Your task to perform on an android device: open app "Google News" Image 0: 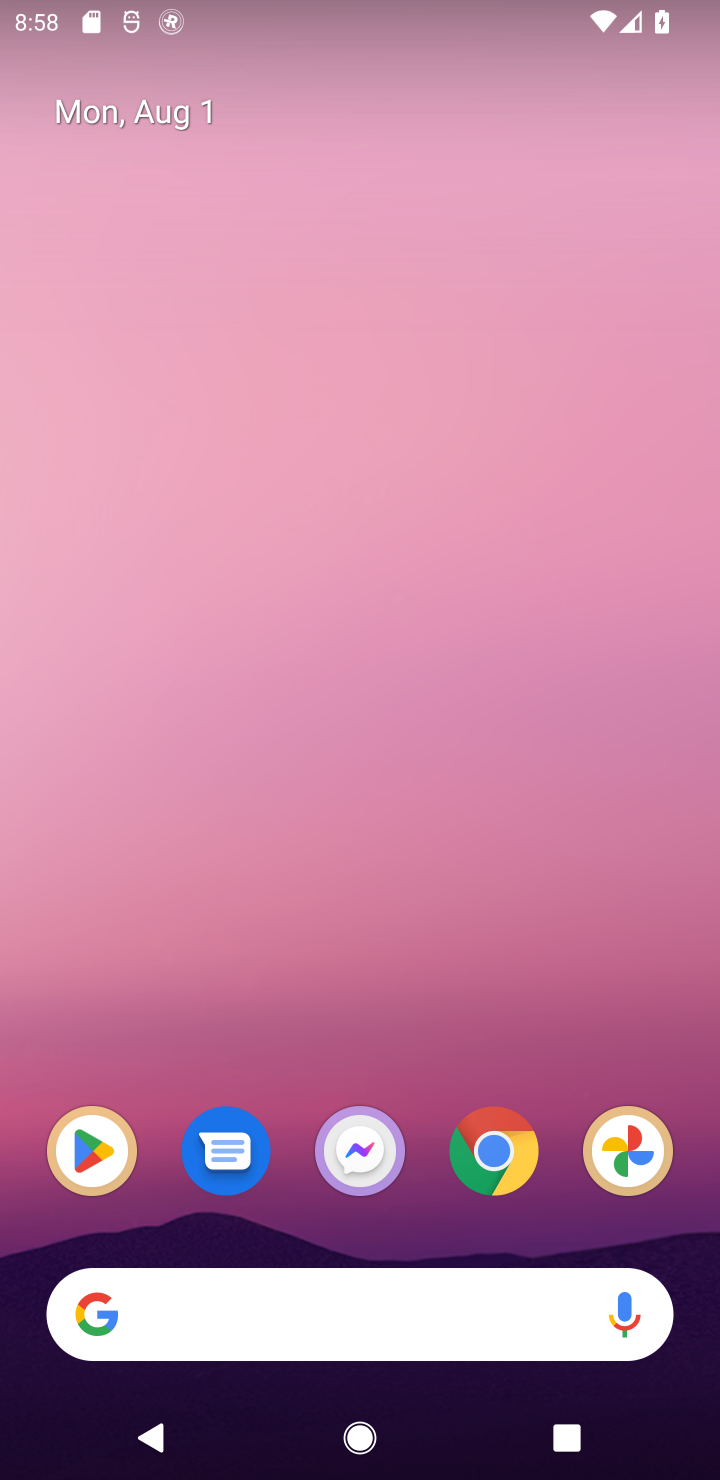
Step 0: click (76, 1135)
Your task to perform on an android device: open app "Google News" Image 1: 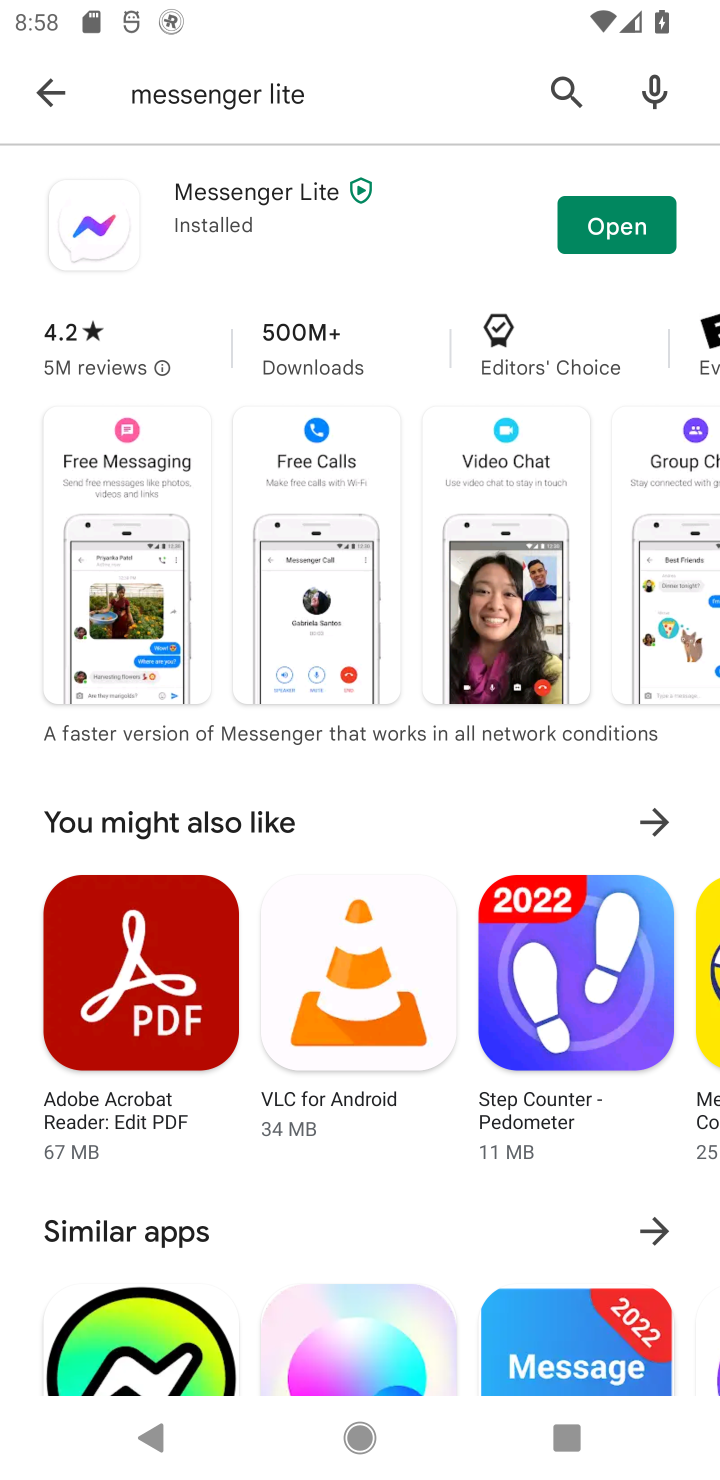
Step 1: click (562, 95)
Your task to perform on an android device: open app "Google News" Image 2: 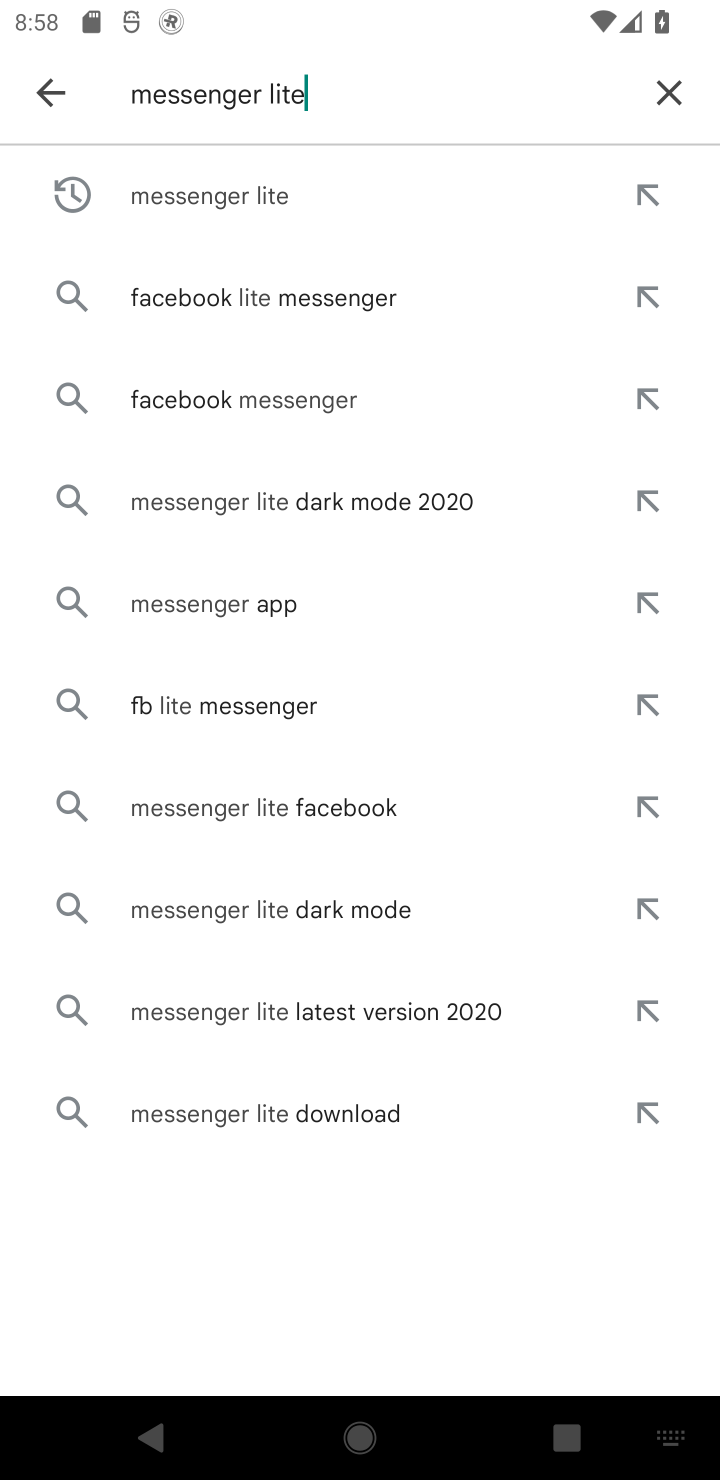
Step 2: click (668, 90)
Your task to perform on an android device: open app "Google News" Image 3: 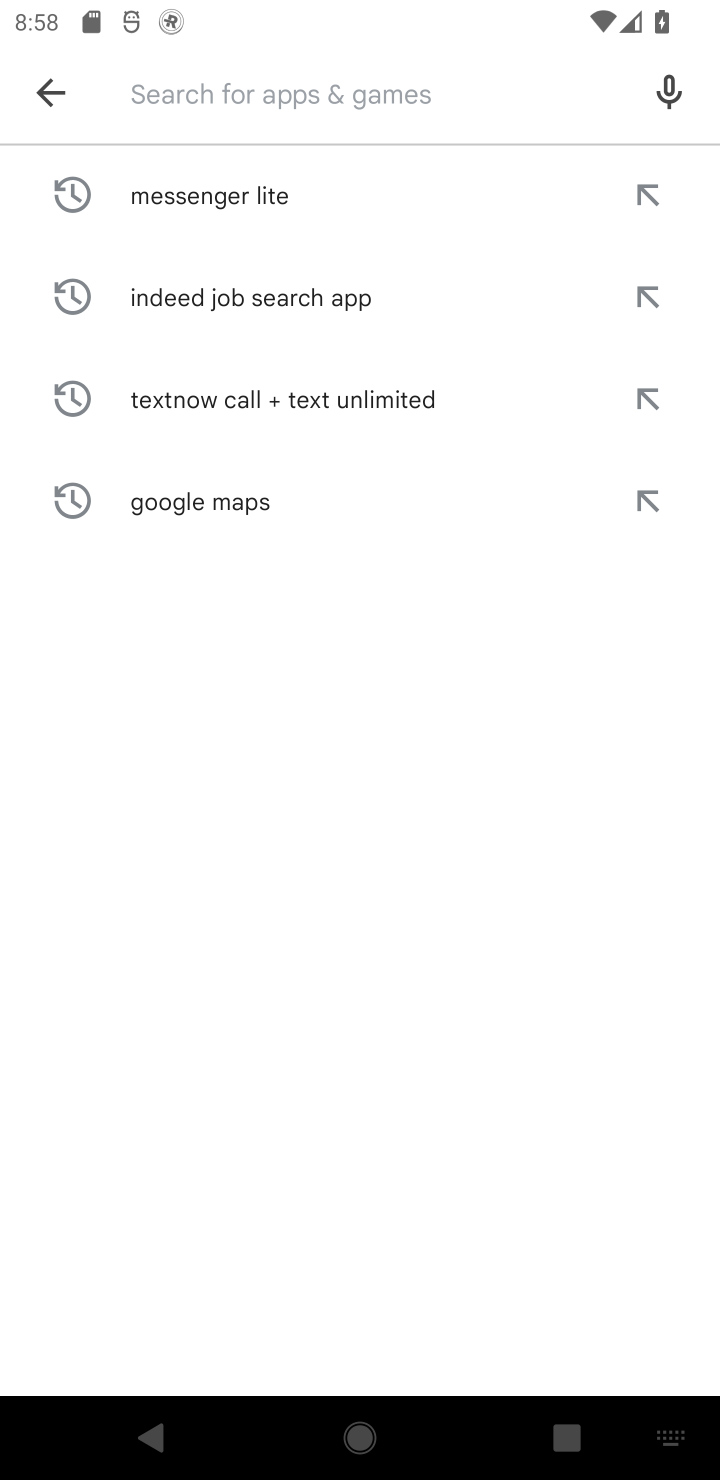
Step 3: type "Google News"
Your task to perform on an android device: open app "Google News" Image 4: 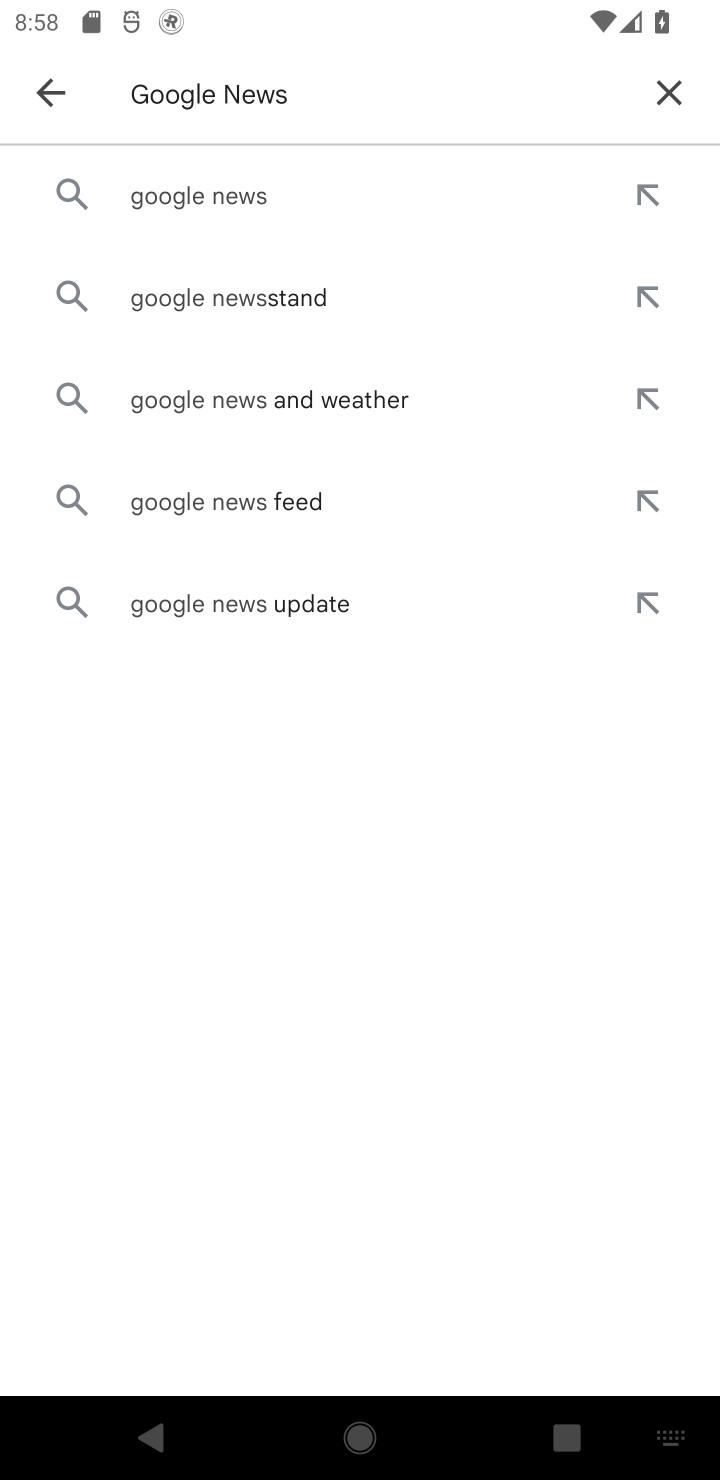
Step 4: click (295, 200)
Your task to perform on an android device: open app "Google News" Image 5: 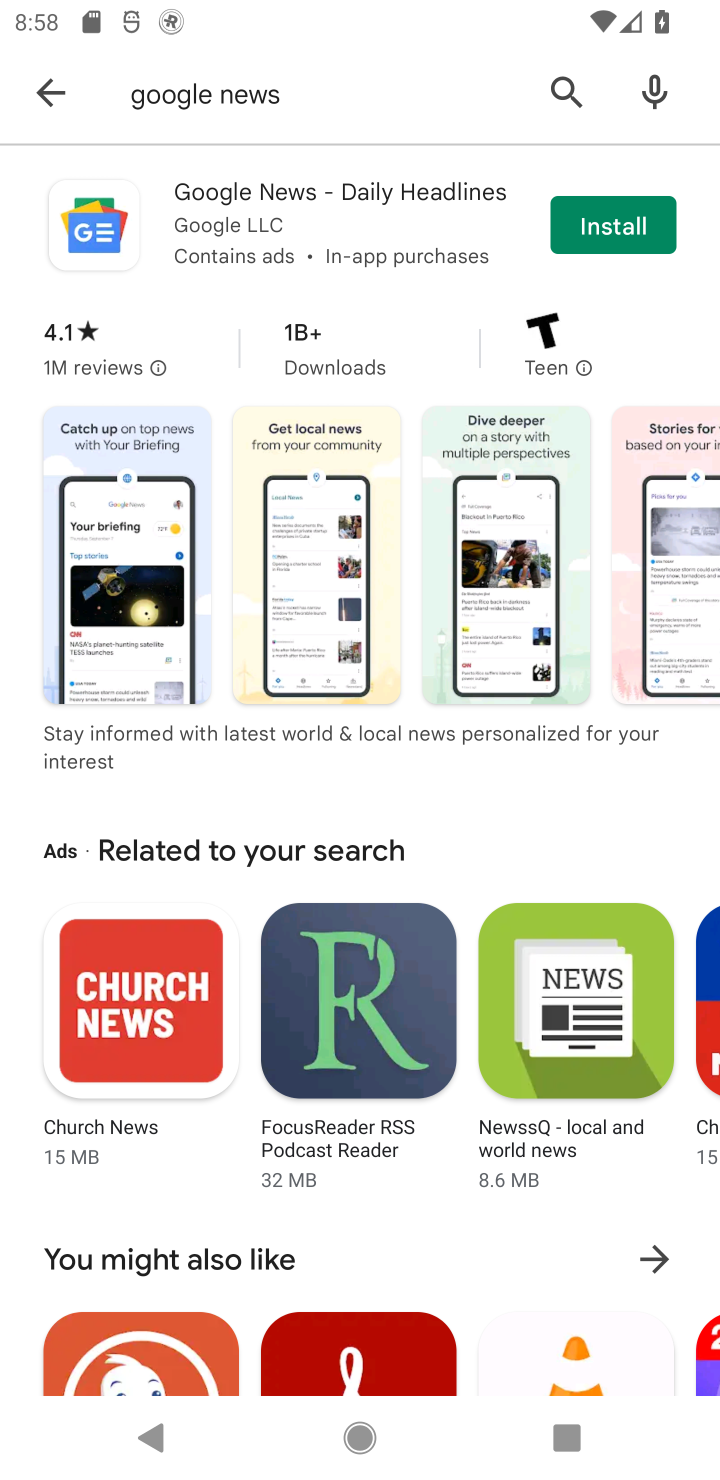
Step 5: task complete